Your task to perform on an android device: add a label to a message in the gmail app Image 0: 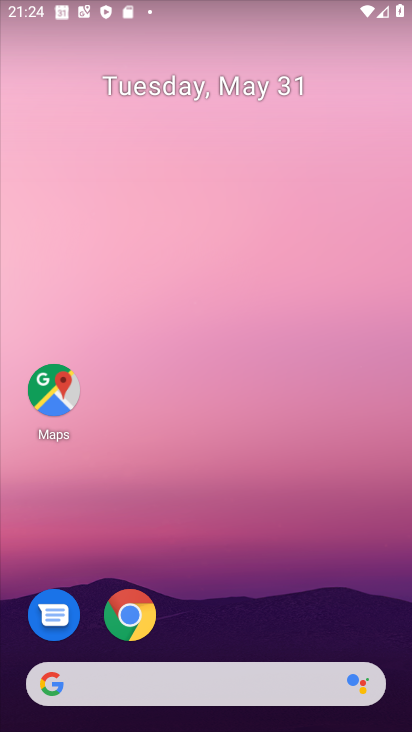
Step 0: drag from (261, 614) to (212, 200)
Your task to perform on an android device: add a label to a message in the gmail app Image 1: 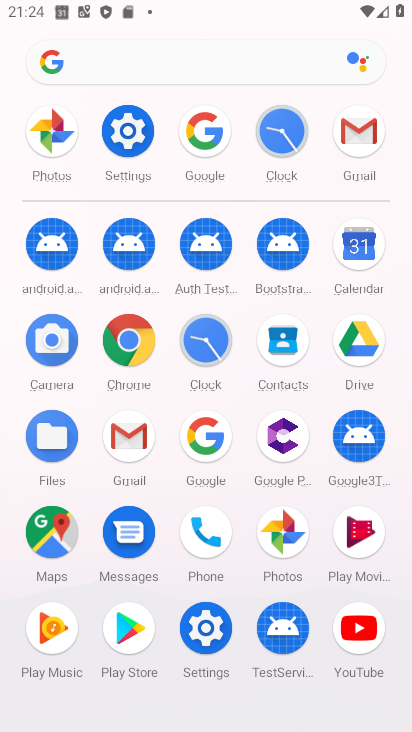
Step 1: click (359, 126)
Your task to perform on an android device: add a label to a message in the gmail app Image 2: 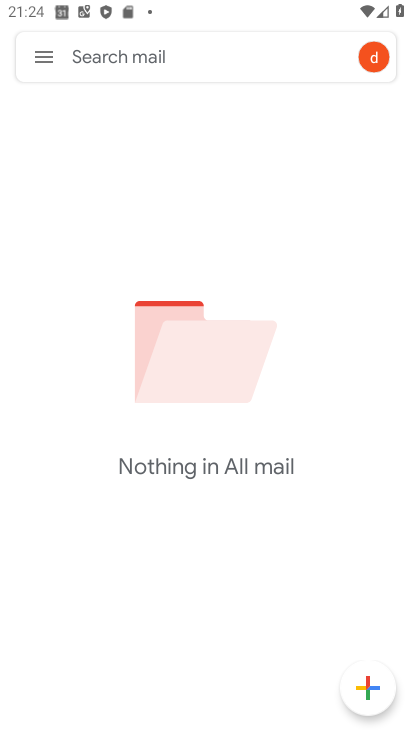
Step 2: task complete